Your task to perform on an android device: manage bookmarks in the chrome app Image 0: 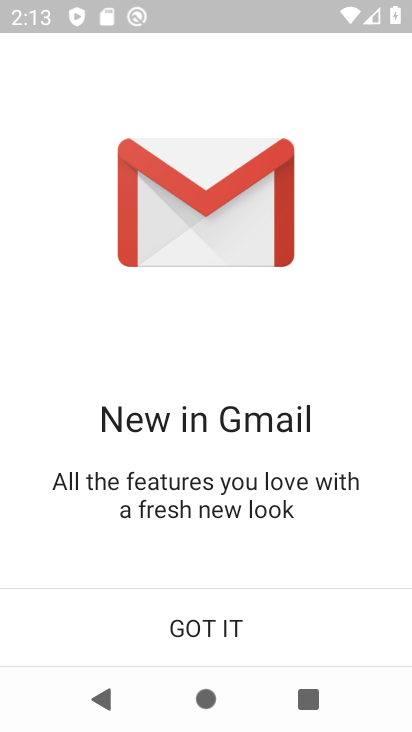
Step 0: press home button
Your task to perform on an android device: manage bookmarks in the chrome app Image 1: 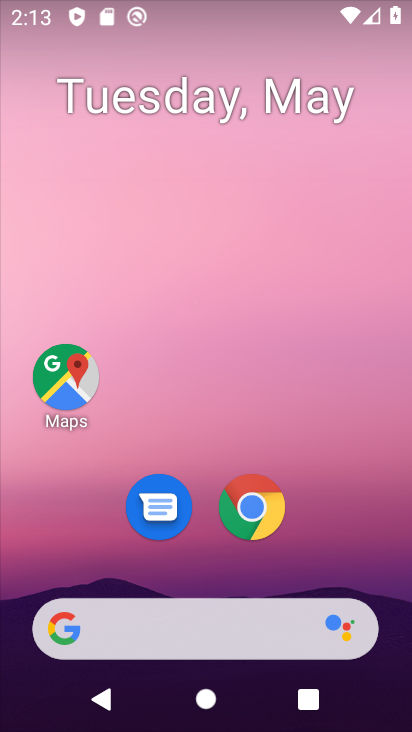
Step 1: click (257, 516)
Your task to perform on an android device: manage bookmarks in the chrome app Image 2: 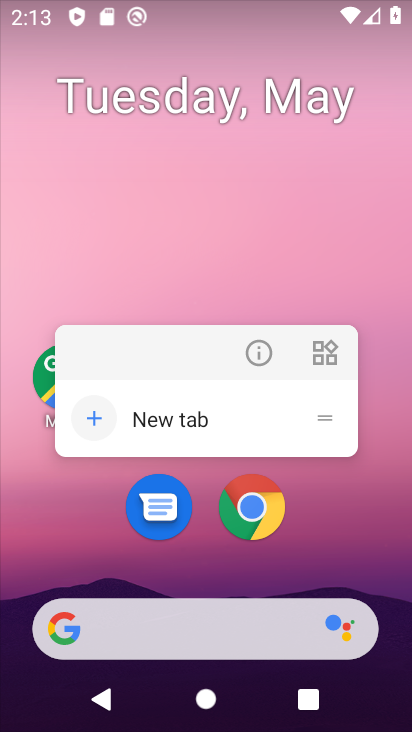
Step 2: click (257, 516)
Your task to perform on an android device: manage bookmarks in the chrome app Image 3: 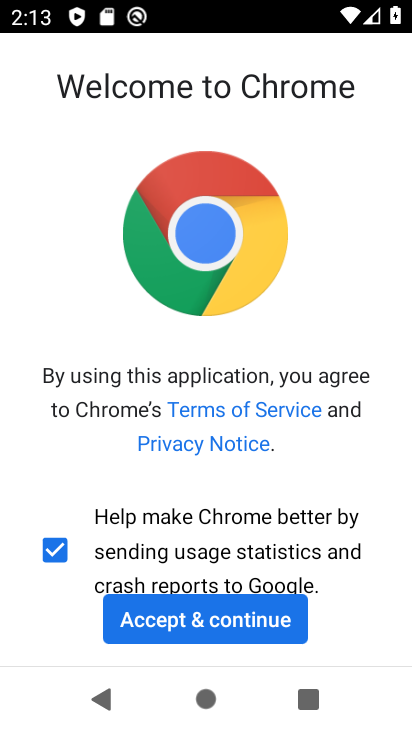
Step 3: click (263, 634)
Your task to perform on an android device: manage bookmarks in the chrome app Image 4: 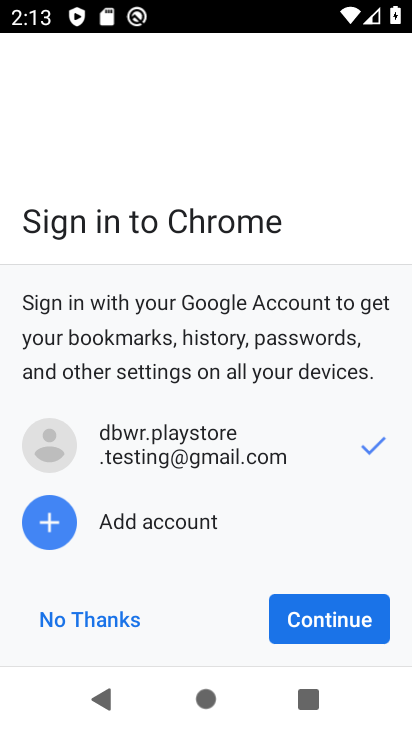
Step 4: click (314, 630)
Your task to perform on an android device: manage bookmarks in the chrome app Image 5: 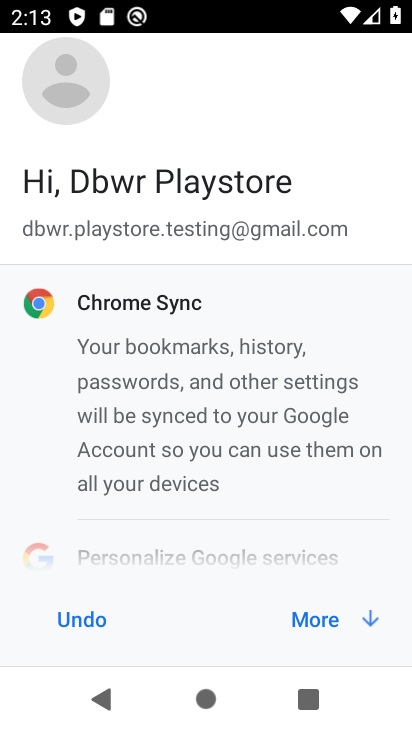
Step 5: click (314, 630)
Your task to perform on an android device: manage bookmarks in the chrome app Image 6: 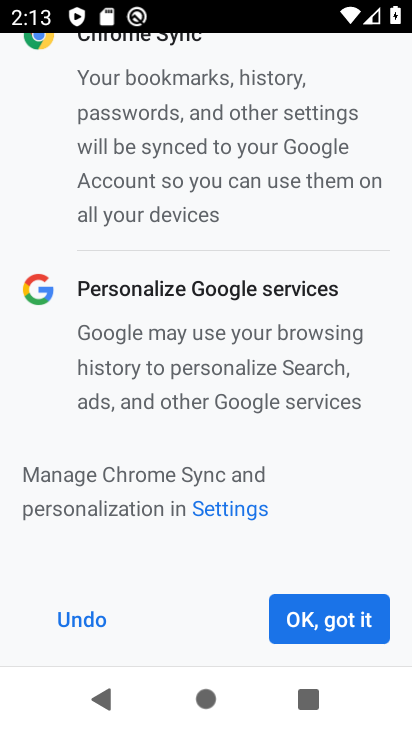
Step 6: click (314, 630)
Your task to perform on an android device: manage bookmarks in the chrome app Image 7: 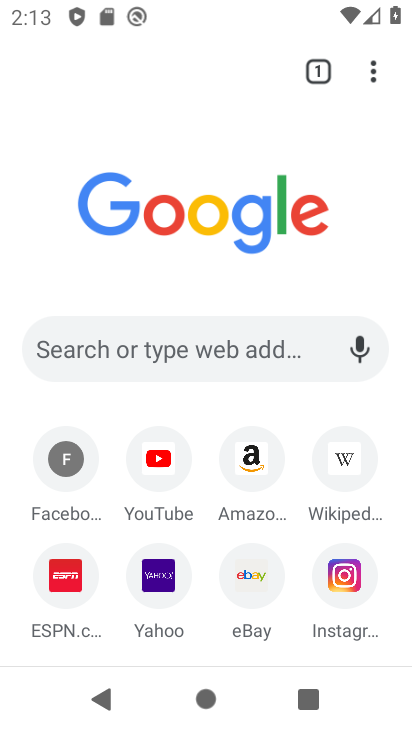
Step 7: click (369, 82)
Your task to perform on an android device: manage bookmarks in the chrome app Image 8: 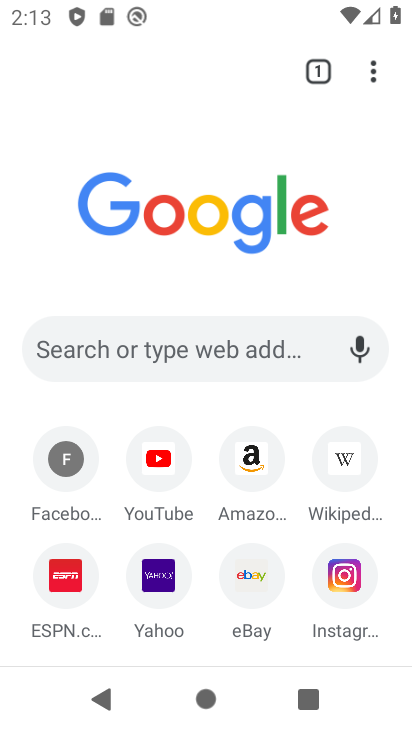
Step 8: task complete